Your task to perform on an android device: Check the news Image 0: 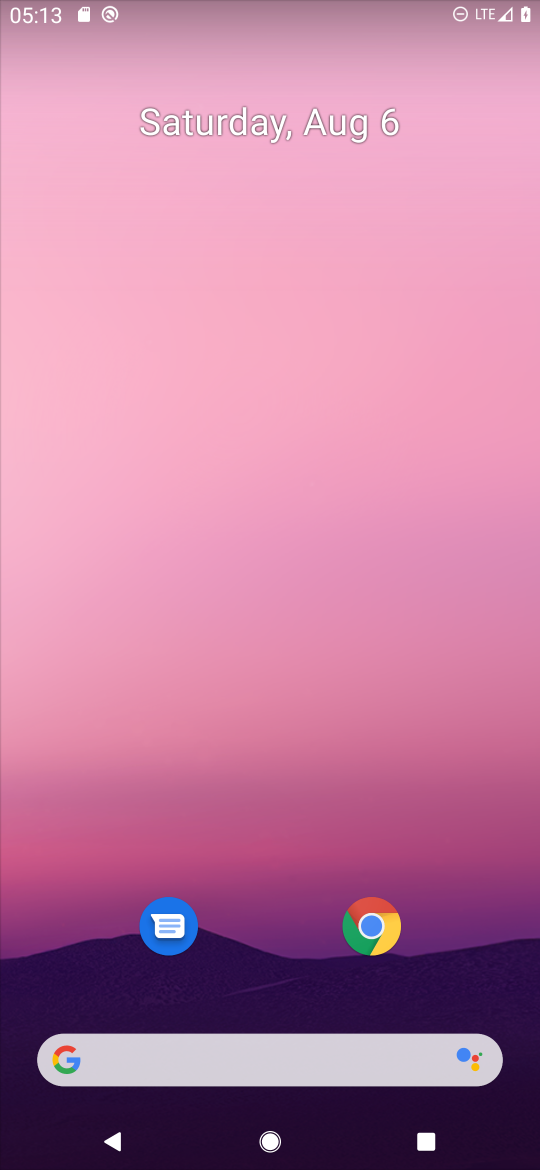
Step 0: drag from (283, 937) to (283, 285)
Your task to perform on an android device: Check the news Image 1: 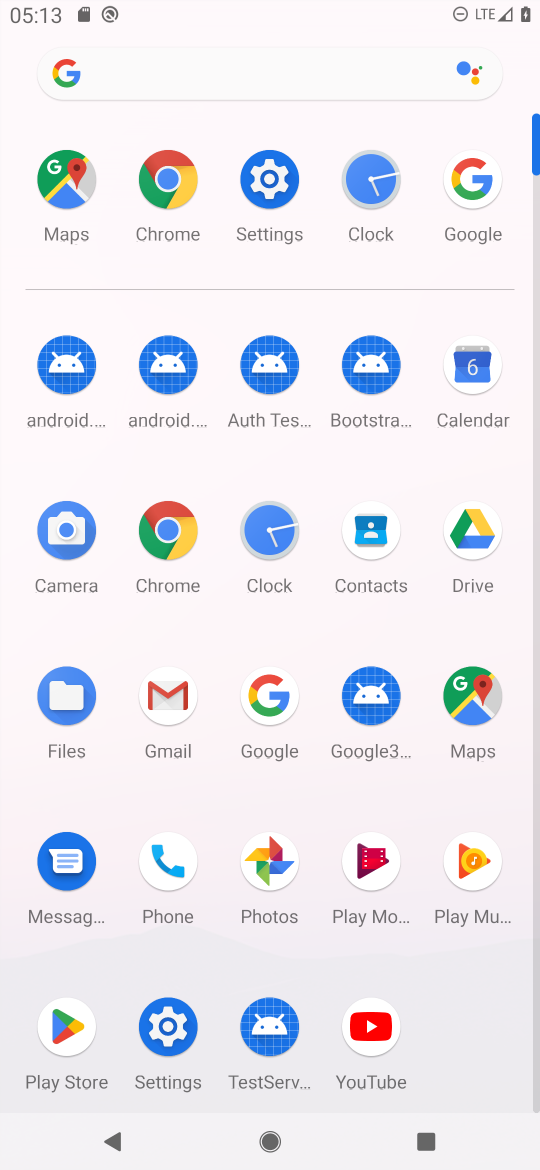
Step 1: click (484, 201)
Your task to perform on an android device: Check the news Image 2: 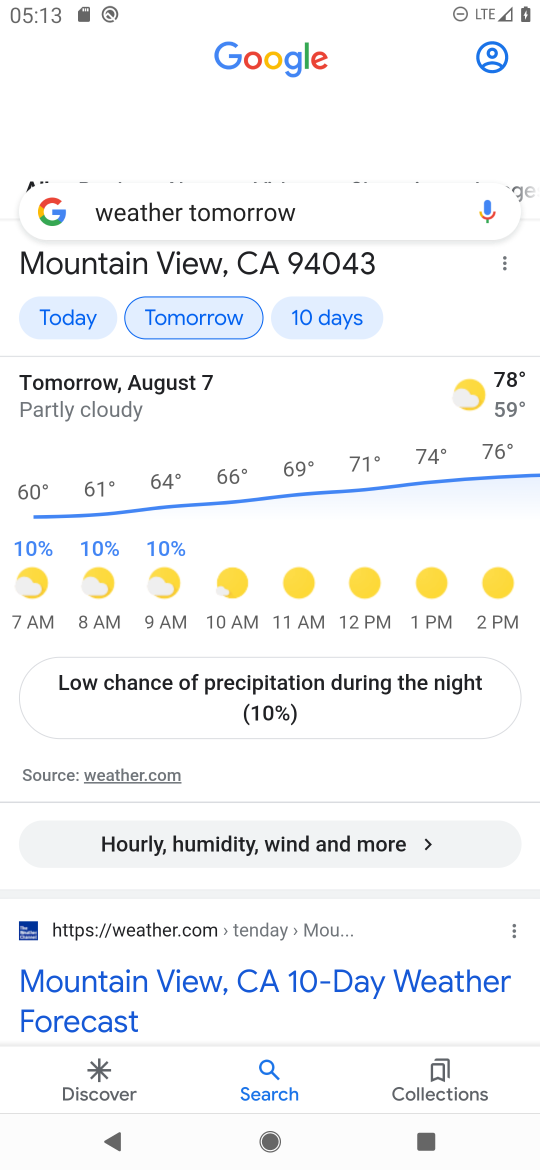
Step 2: click (316, 196)
Your task to perform on an android device: Check the news Image 3: 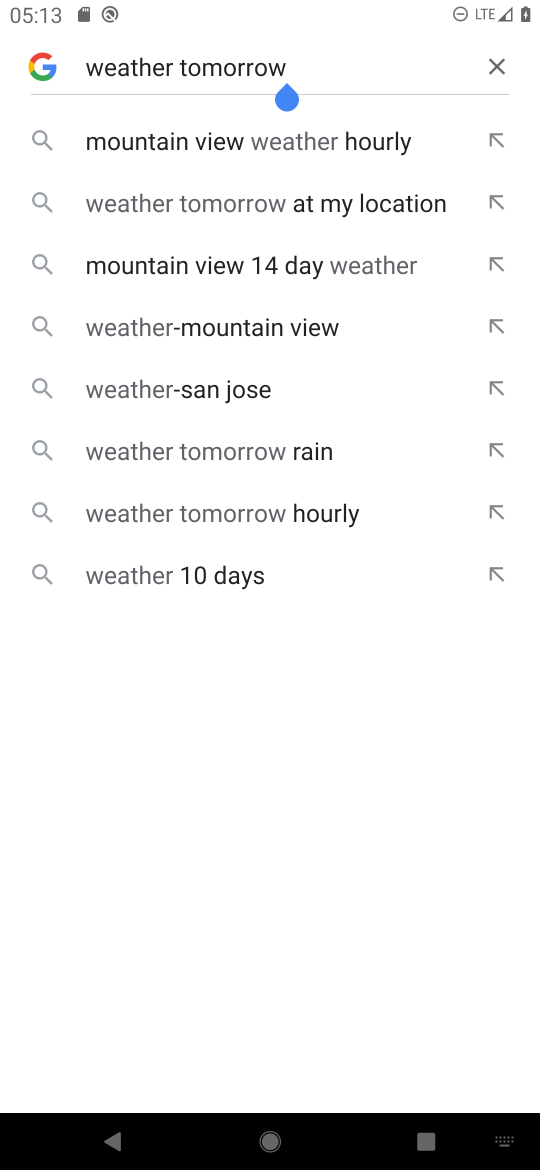
Step 3: click (492, 66)
Your task to perform on an android device: Check the news Image 4: 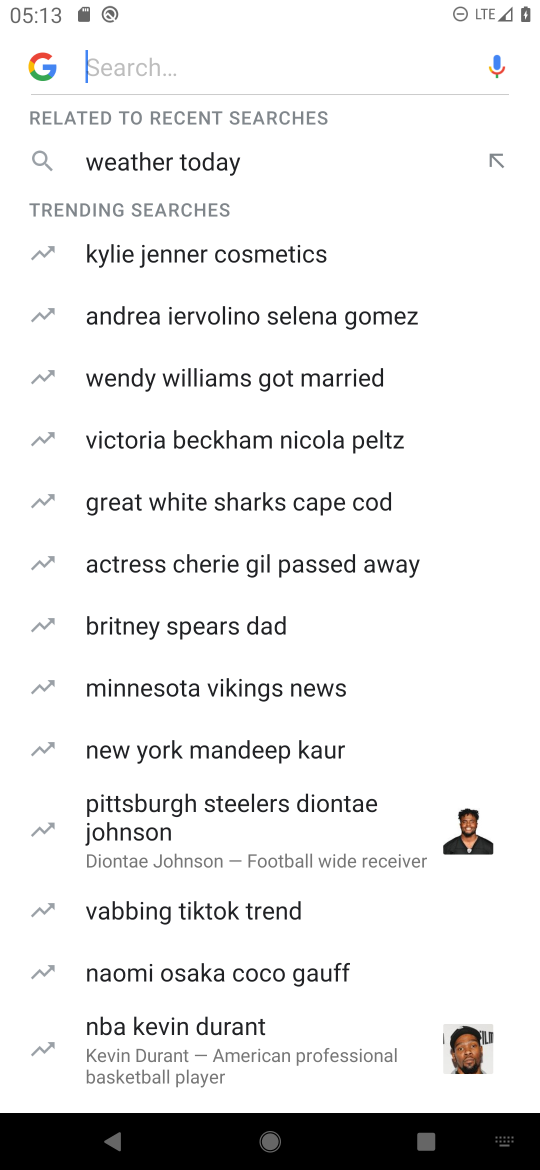
Step 4: type "news"
Your task to perform on an android device: Check the news Image 5: 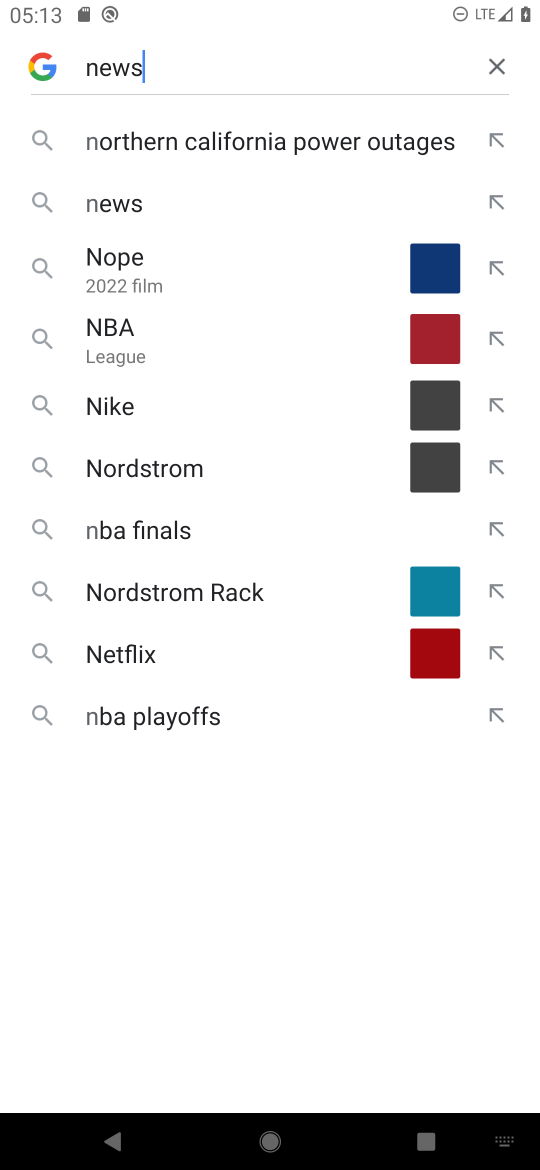
Step 5: type ""
Your task to perform on an android device: Check the news Image 6: 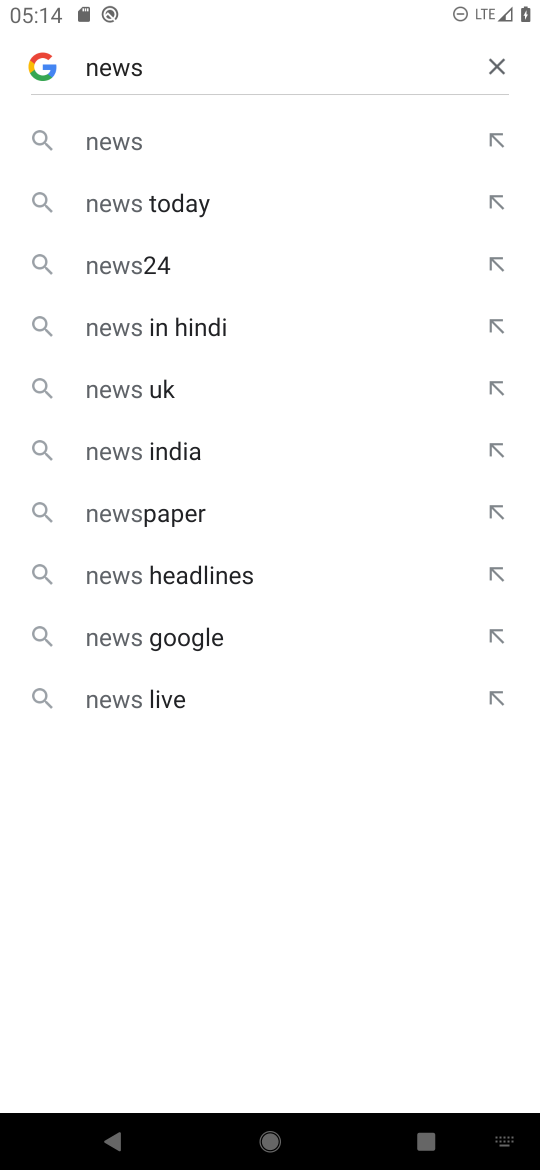
Step 6: click (137, 143)
Your task to perform on an android device: Check the news Image 7: 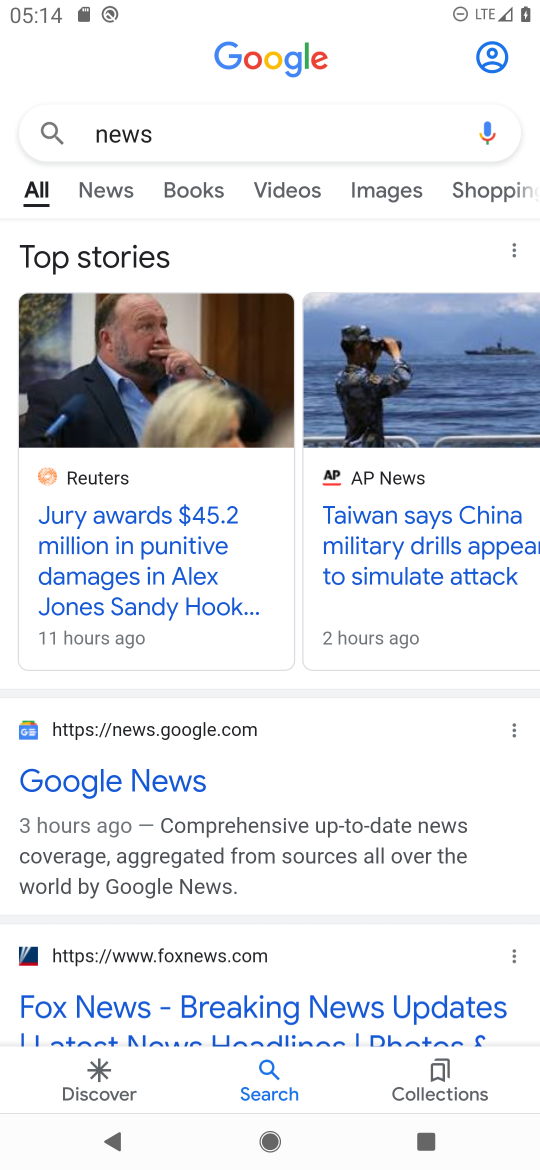
Step 7: click (86, 196)
Your task to perform on an android device: Check the news Image 8: 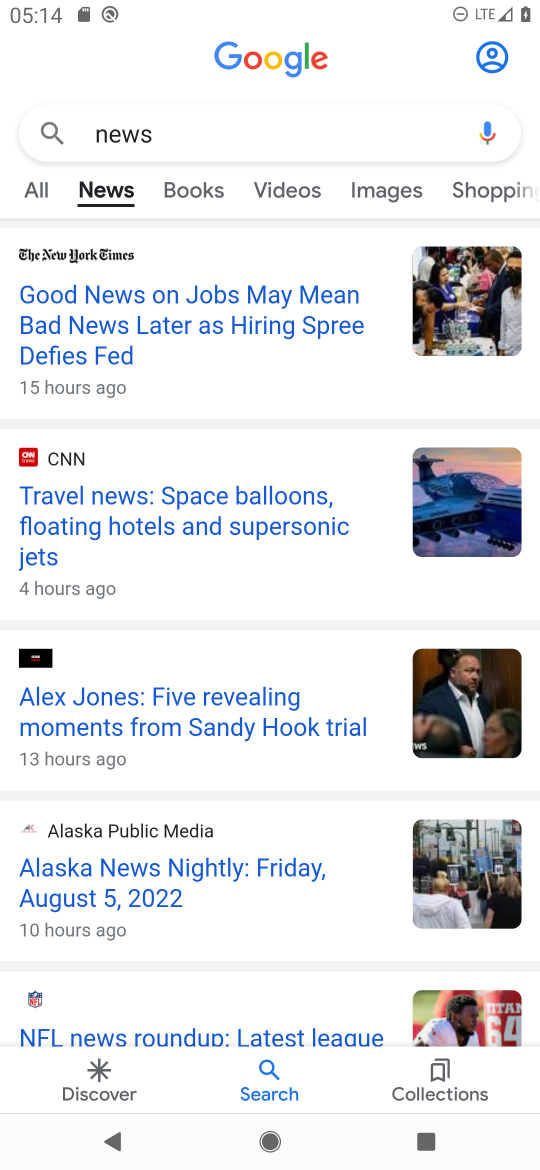
Step 8: task complete